Your task to perform on an android device: allow notifications from all sites in the chrome app Image 0: 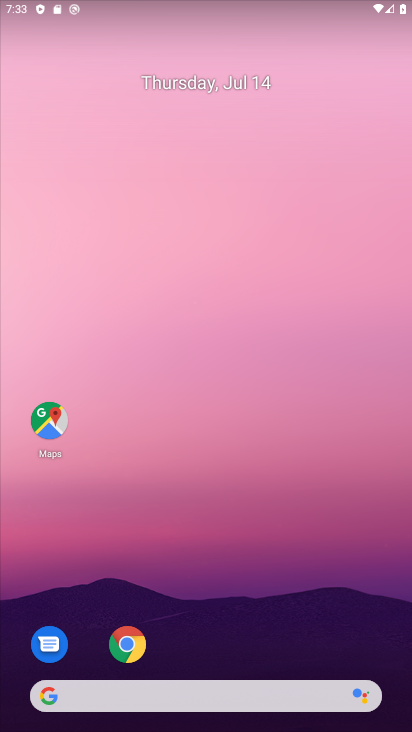
Step 0: click (123, 645)
Your task to perform on an android device: allow notifications from all sites in the chrome app Image 1: 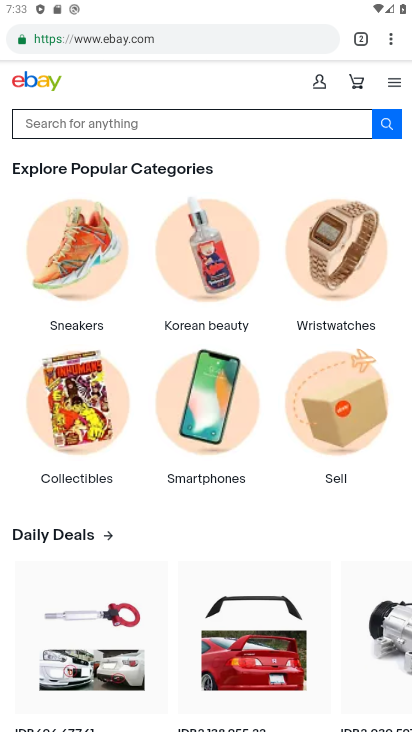
Step 1: drag from (395, 37) to (273, 516)
Your task to perform on an android device: allow notifications from all sites in the chrome app Image 2: 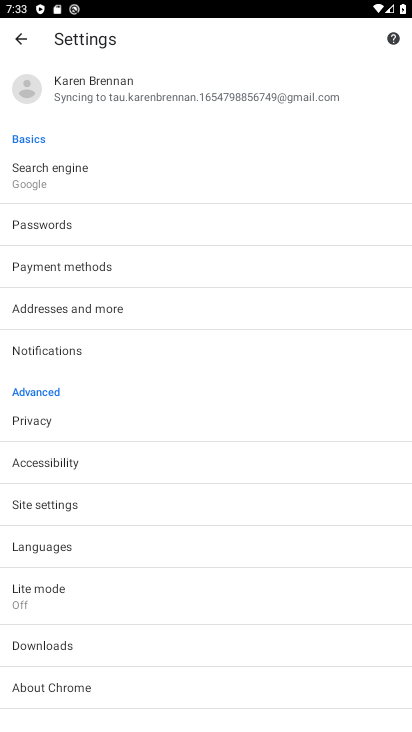
Step 2: click (49, 506)
Your task to perform on an android device: allow notifications from all sites in the chrome app Image 3: 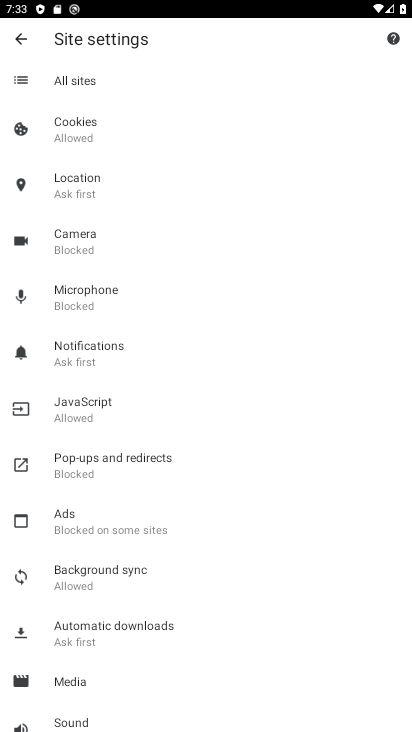
Step 3: click (97, 354)
Your task to perform on an android device: allow notifications from all sites in the chrome app Image 4: 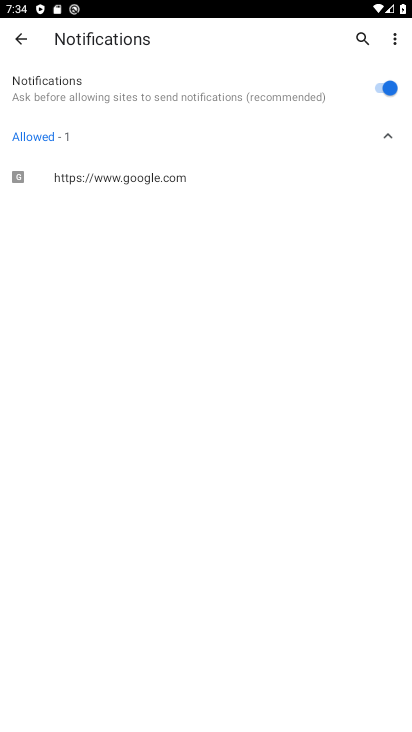
Step 4: task complete